Your task to perform on an android device: turn on notifications settings in the gmail app Image 0: 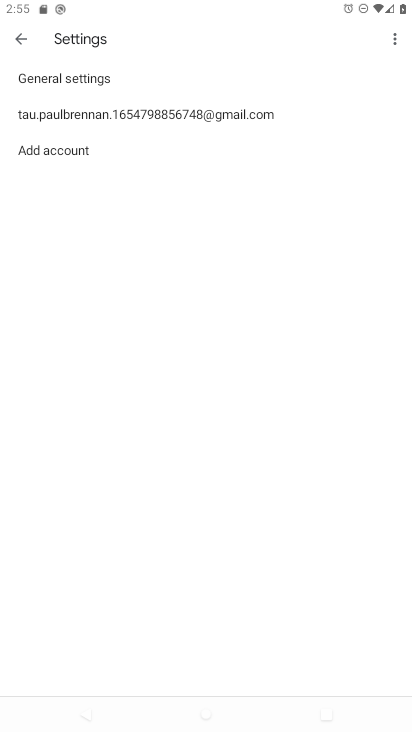
Step 0: press home button
Your task to perform on an android device: turn on notifications settings in the gmail app Image 1: 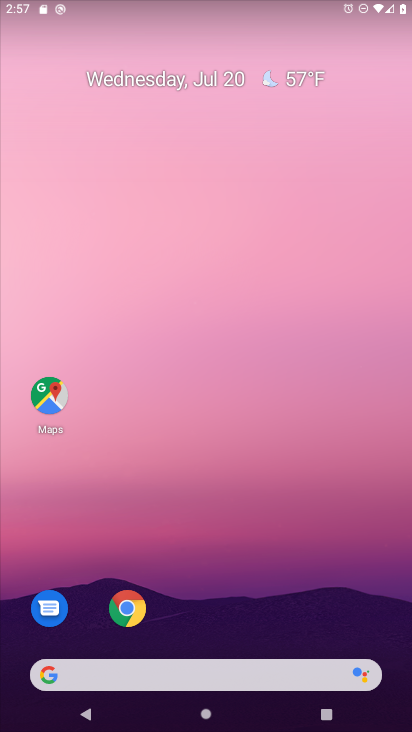
Step 1: drag from (159, 671) to (221, 24)
Your task to perform on an android device: turn on notifications settings in the gmail app Image 2: 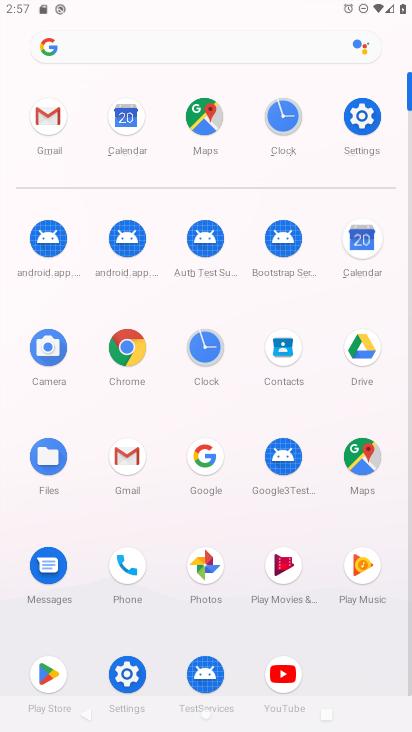
Step 2: click (48, 117)
Your task to perform on an android device: turn on notifications settings in the gmail app Image 3: 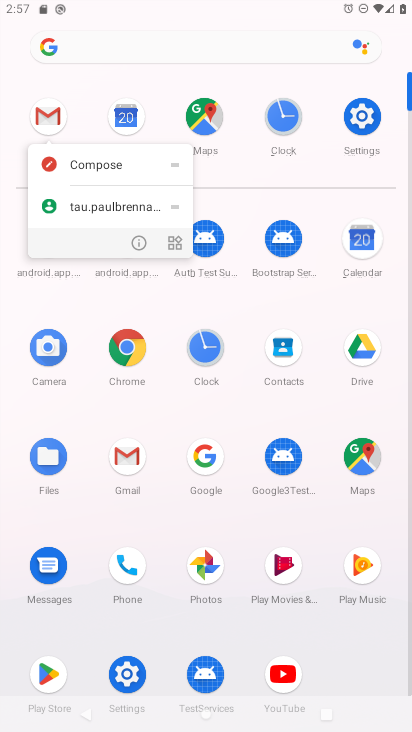
Step 3: click (142, 239)
Your task to perform on an android device: turn on notifications settings in the gmail app Image 4: 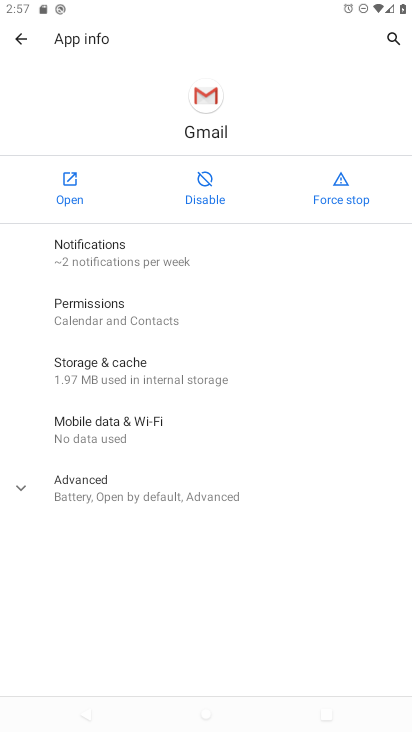
Step 4: click (168, 261)
Your task to perform on an android device: turn on notifications settings in the gmail app Image 5: 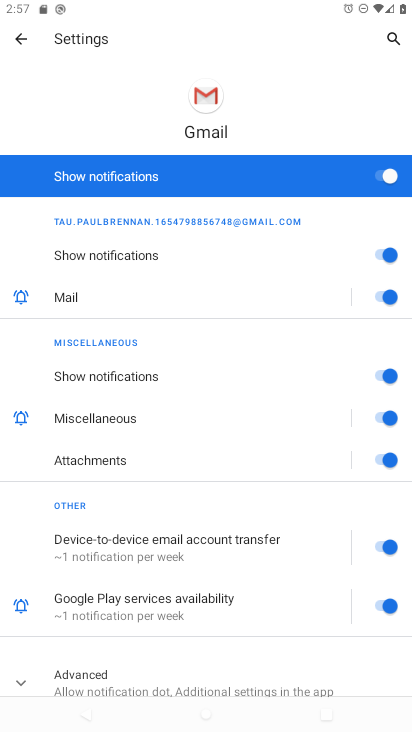
Step 5: task complete